Your task to perform on an android device: check android version Image 0: 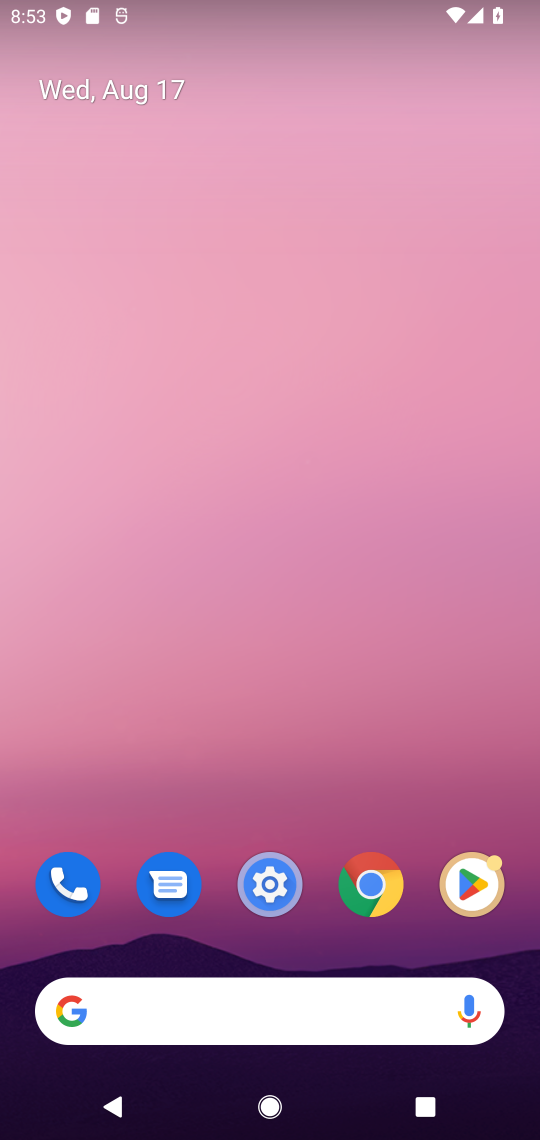
Step 0: click (278, 886)
Your task to perform on an android device: check android version Image 1: 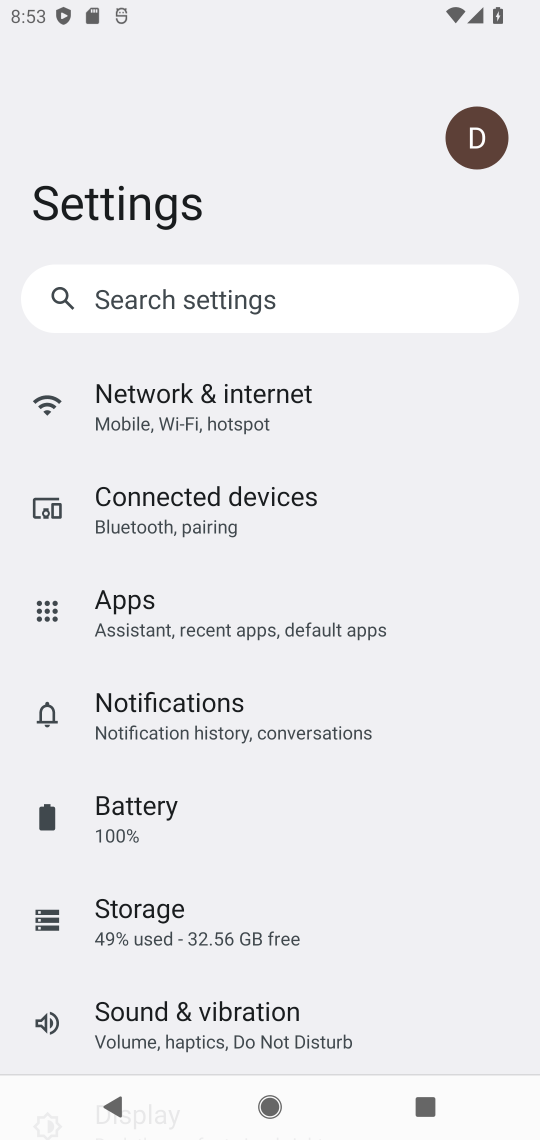
Step 1: task complete